Your task to perform on an android device: What's the latest video from GameSpot News? Image 0: 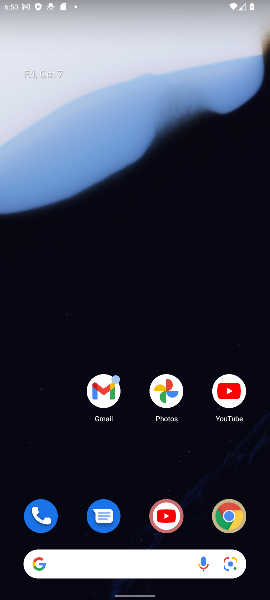
Step 0: click (112, 553)
Your task to perform on an android device: What's the latest video from GameSpot News? Image 1: 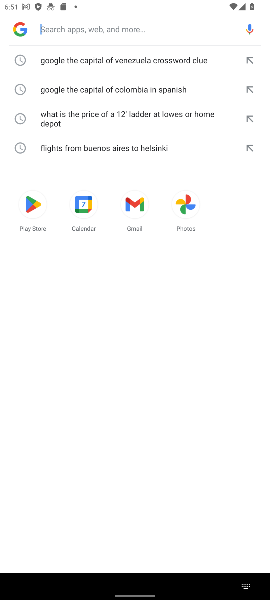
Step 1: type "What's the latest video from GameSpot News?'"
Your task to perform on an android device: What's the latest video from GameSpot News? Image 2: 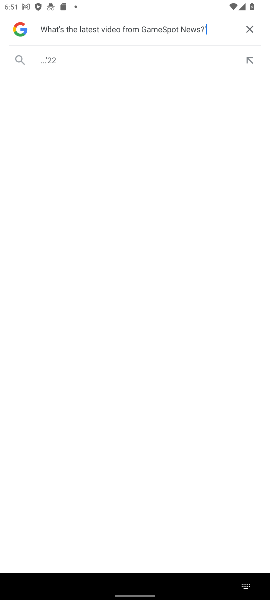
Step 2: click (119, 60)
Your task to perform on an android device: What's the latest video from GameSpot News? Image 3: 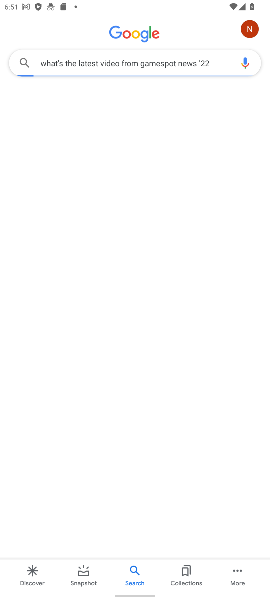
Step 3: task complete